Your task to perform on an android device: Is it going to rain today? Image 0: 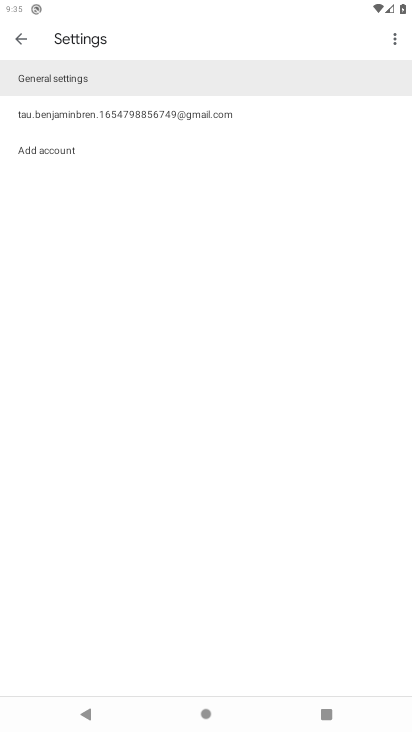
Step 0: press home button
Your task to perform on an android device: Is it going to rain today? Image 1: 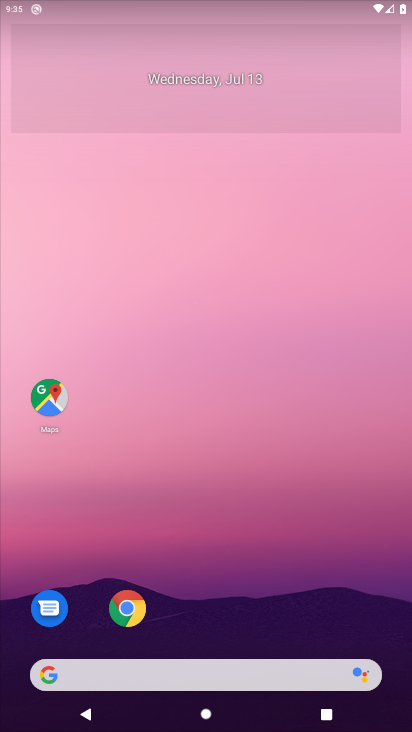
Step 1: click (140, 673)
Your task to perform on an android device: Is it going to rain today? Image 2: 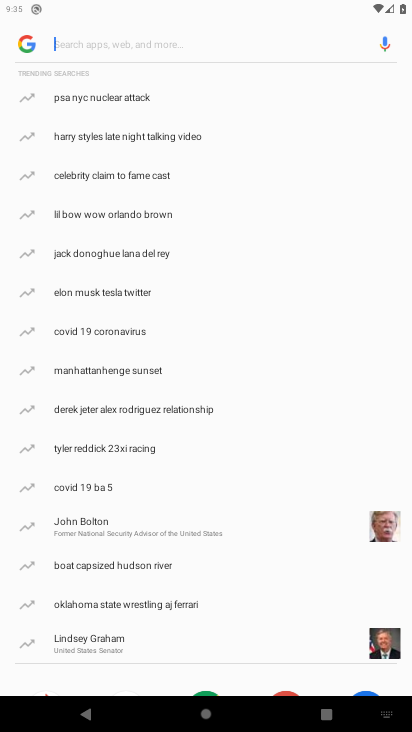
Step 2: click (77, 35)
Your task to perform on an android device: Is it going to rain today? Image 3: 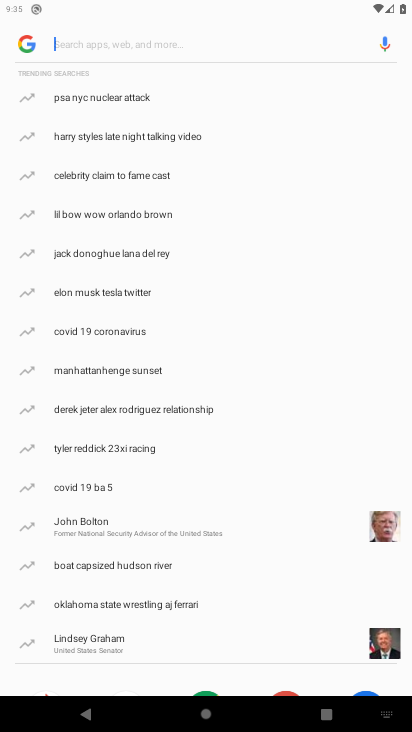
Step 3: type "Is it going to rain today?"
Your task to perform on an android device: Is it going to rain today? Image 4: 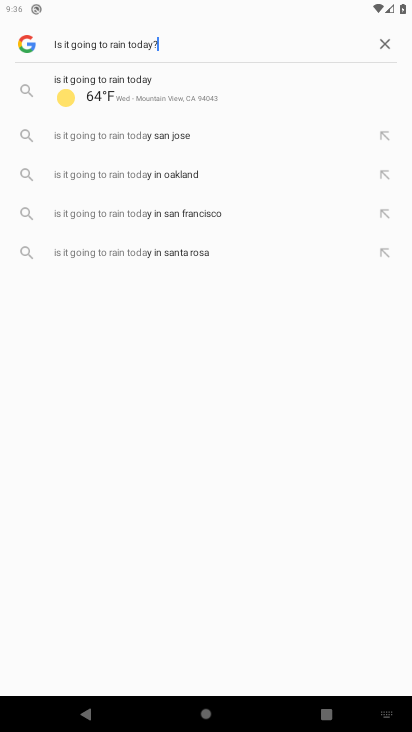
Step 4: type ""
Your task to perform on an android device: Is it going to rain today? Image 5: 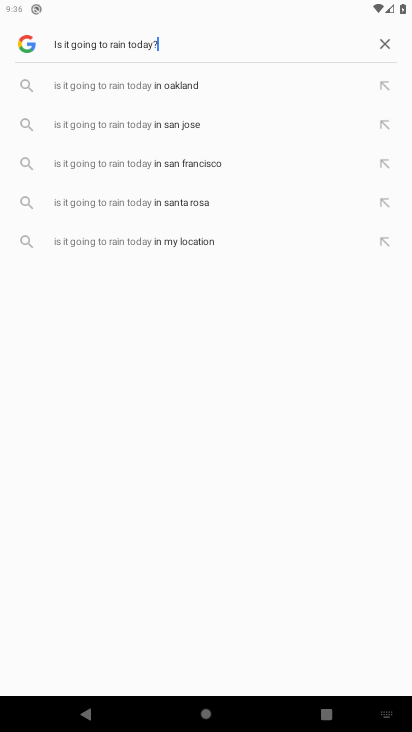
Step 5: type ""
Your task to perform on an android device: Is it going to rain today? Image 6: 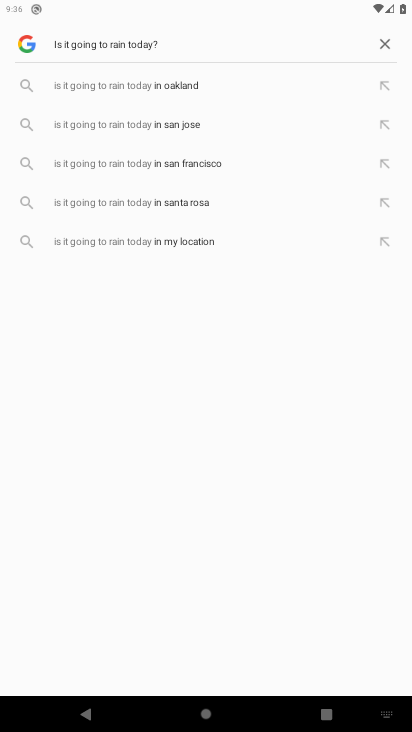
Step 6: type ""
Your task to perform on an android device: Is it going to rain today? Image 7: 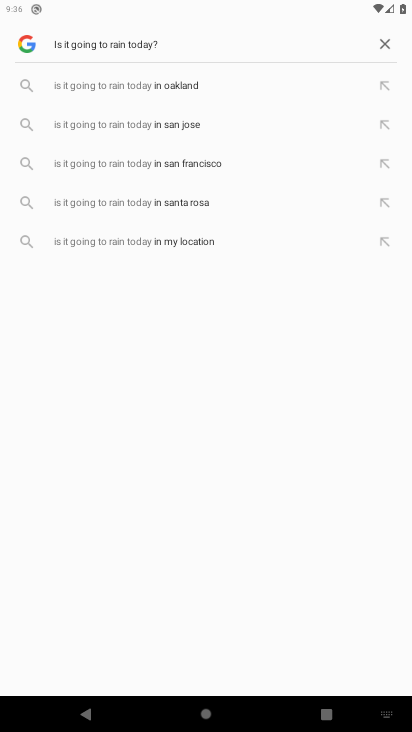
Step 7: type ""
Your task to perform on an android device: Is it going to rain today? Image 8: 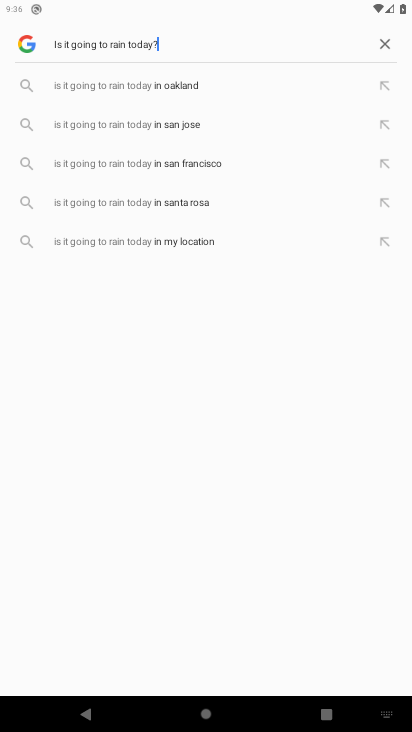
Step 8: task complete